Your task to perform on an android device: change the clock style Image 0: 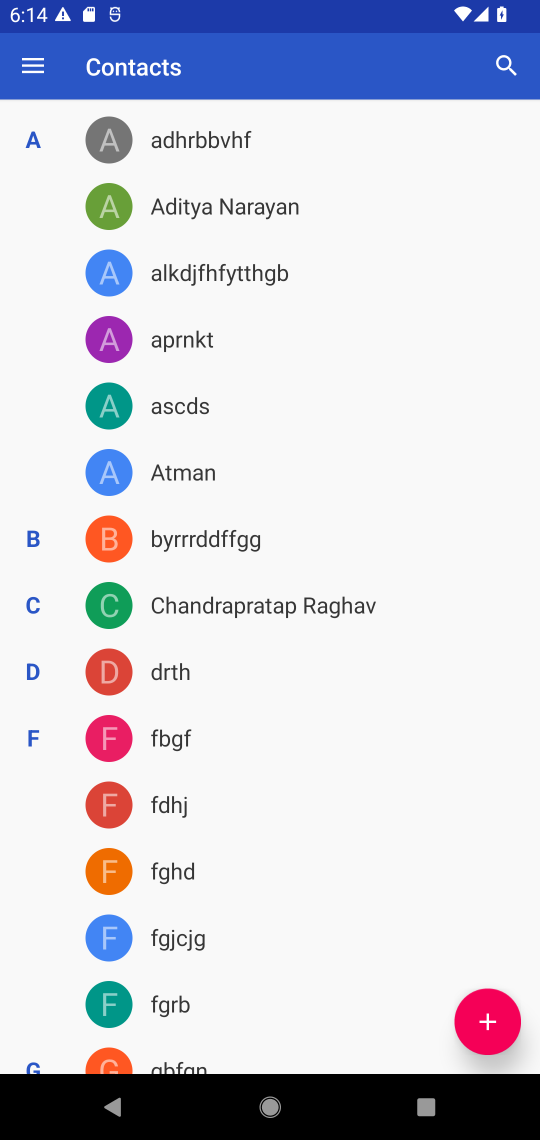
Step 0: press home button
Your task to perform on an android device: change the clock style Image 1: 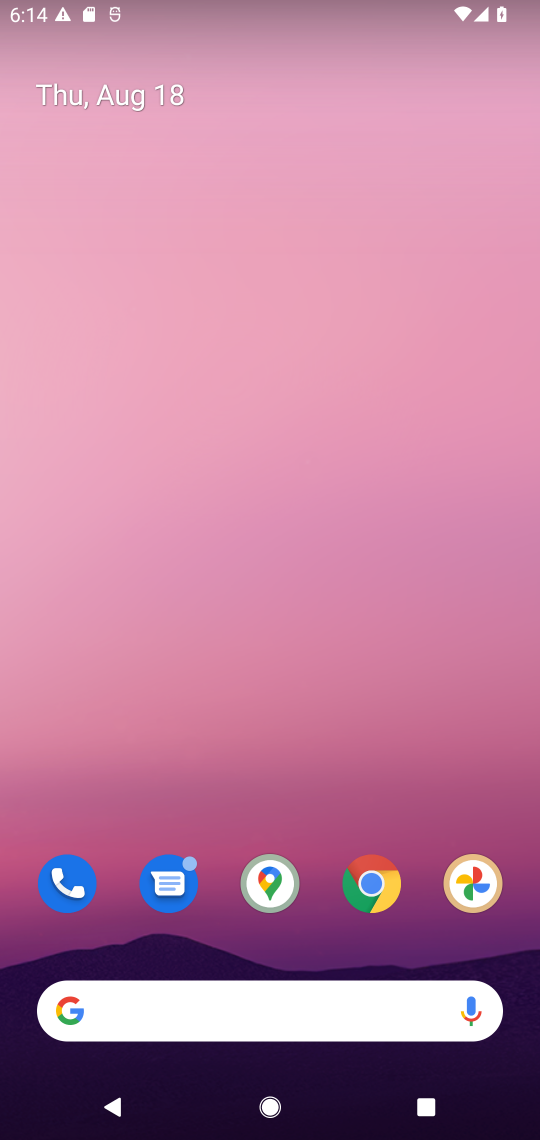
Step 1: drag from (19, 1097) to (282, 268)
Your task to perform on an android device: change the clock style Image 2: 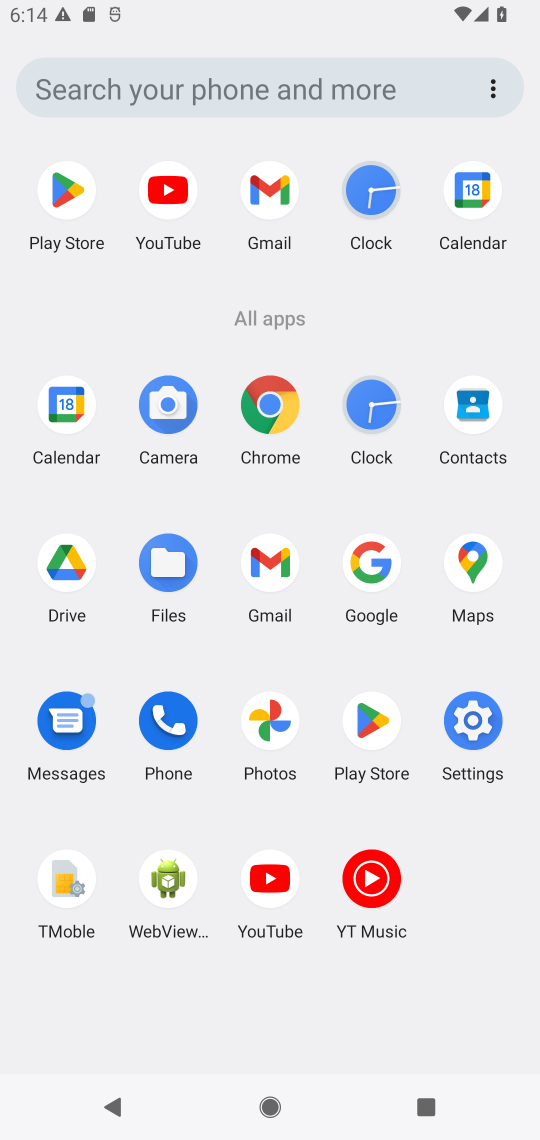
Step 2: click (364, 422)
Your task to perform on an android device: change the clock style Image 3: 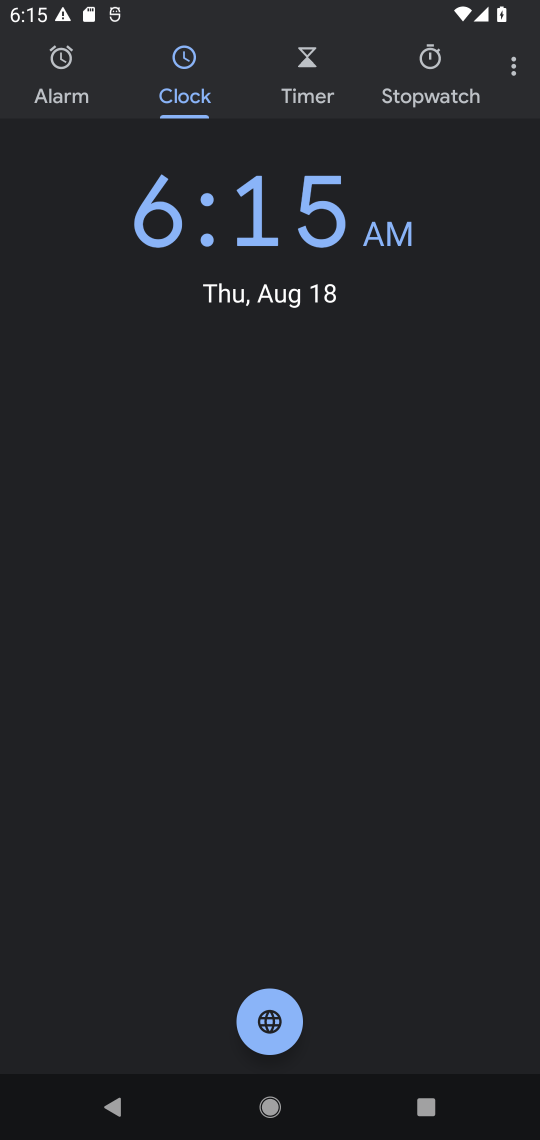
Step 3: click (524, 73)
Your task to perform on an android device: change the clock style Image 4: 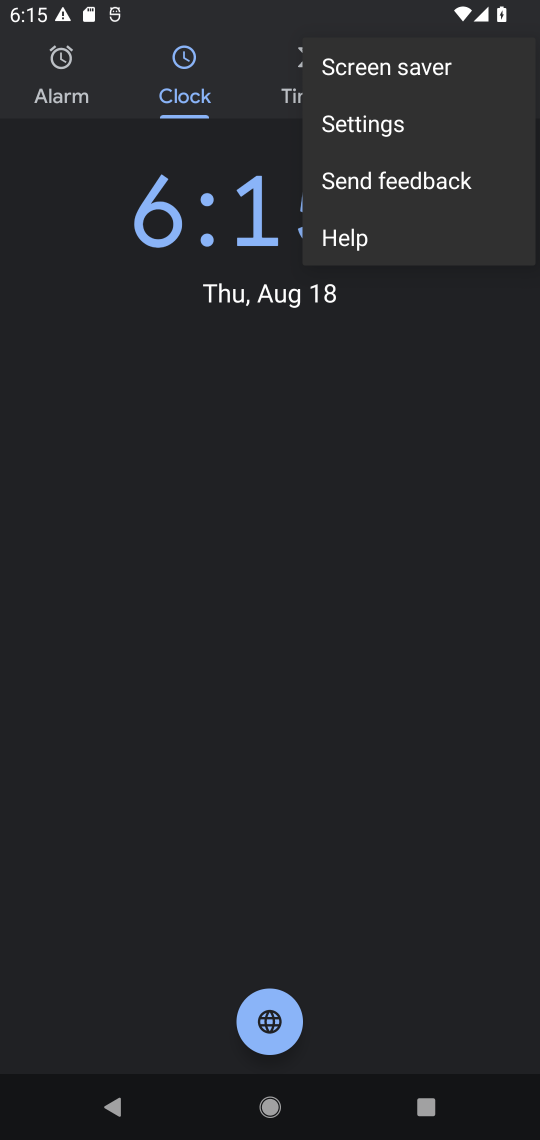
Step 4: click (361, 137)
Your task to perform on an android device: change the clock style Image 5: 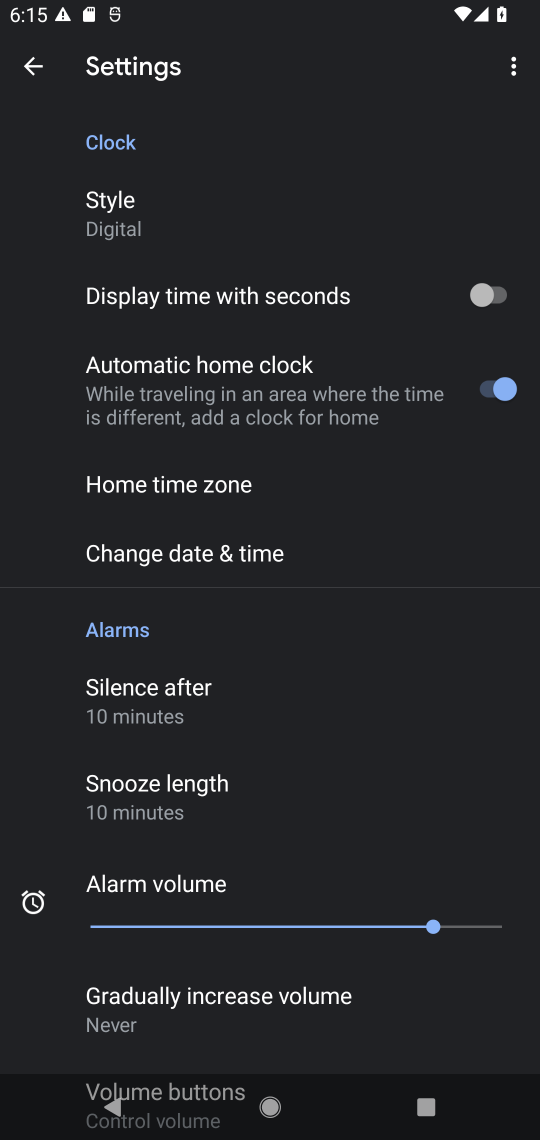
Step 5: click (103, 221)
Your task to perform on an android device: change the clock style Image 6: 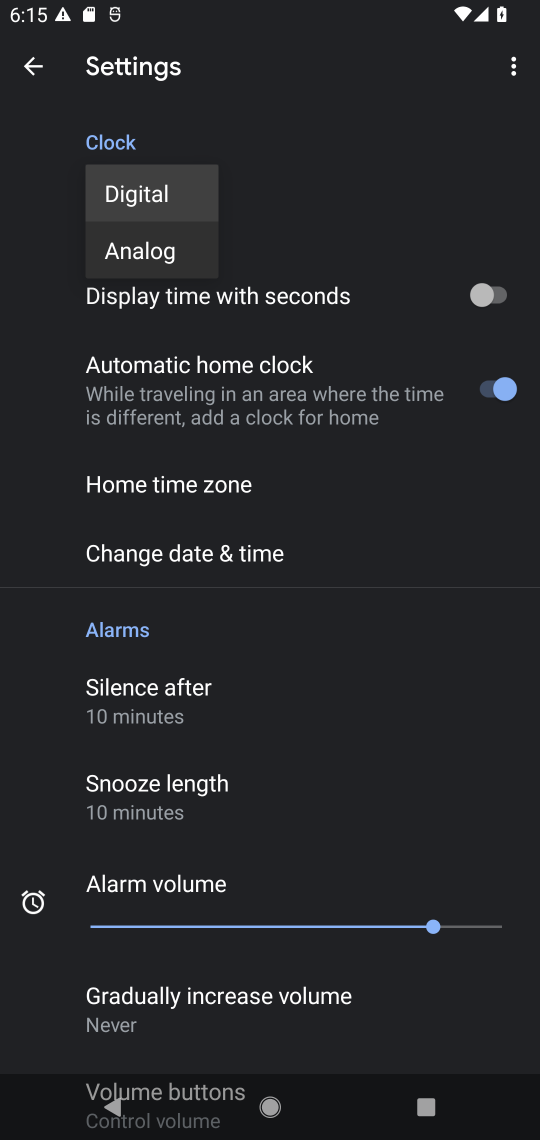
Step 6: click (134, 264)
Your task to perform on an android device: change the clock style Image 7: 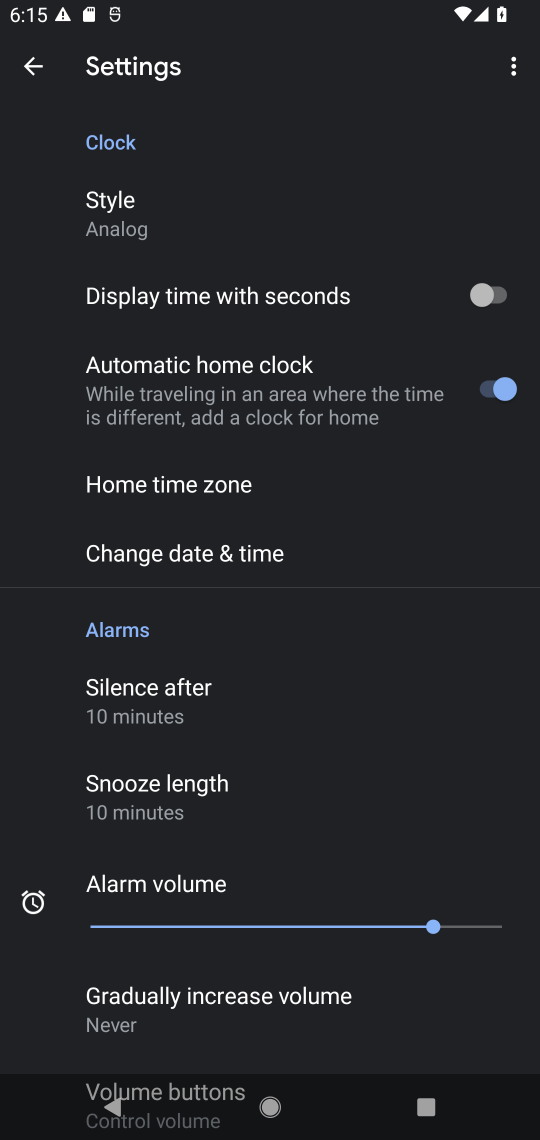
Step 7: task complete